Your task to perform on an android device: Go to Amazon Image 0: 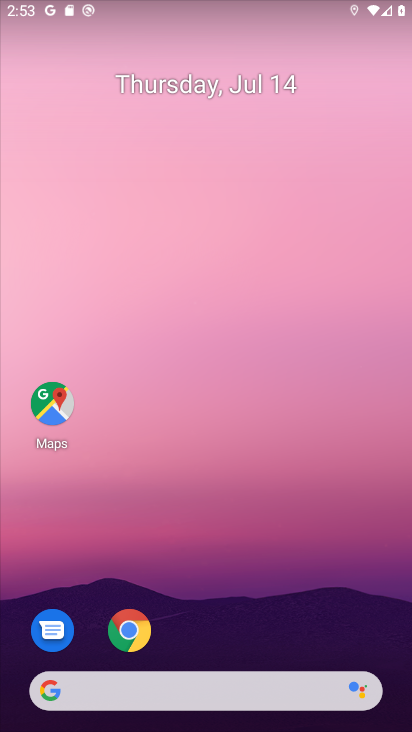
Step 0: drag from (295, 628) to (205, 132)
Your task to perform on an android device: Go to Amazon Image 1: 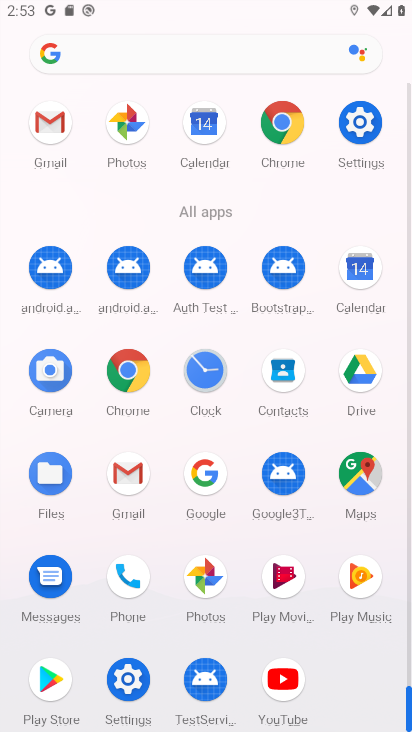
Step 1: click (274, 122)
Your task to perform on an android device: Go to Amazon Image 2: 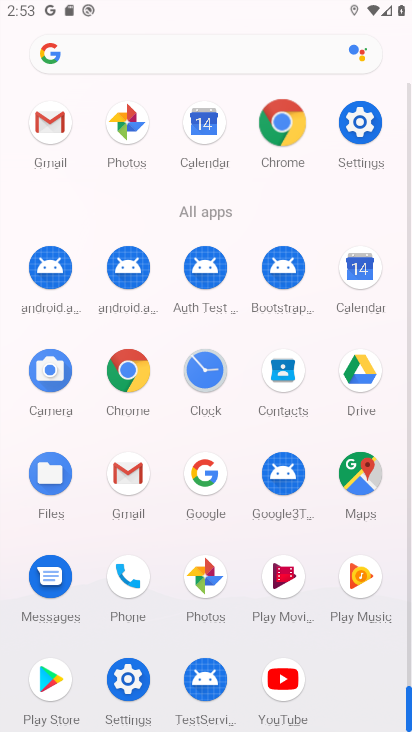
Step 2: click (274, 122)
Your task to perform on an android device: Go to Amazon Image 3: 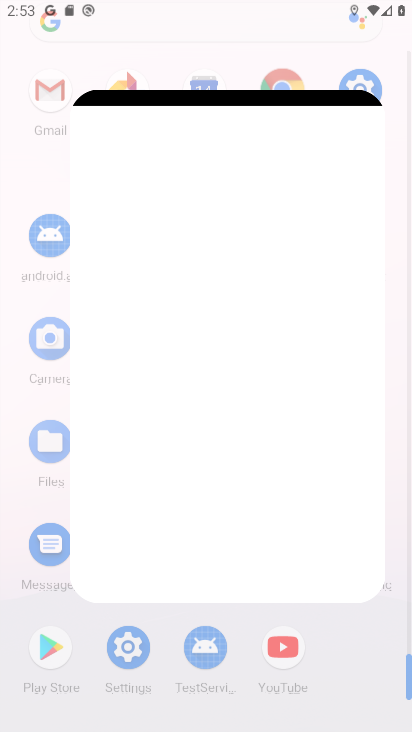
Step 3: click (275, 122)
Your task to perform on an android device: Go to Amazon Image 4: 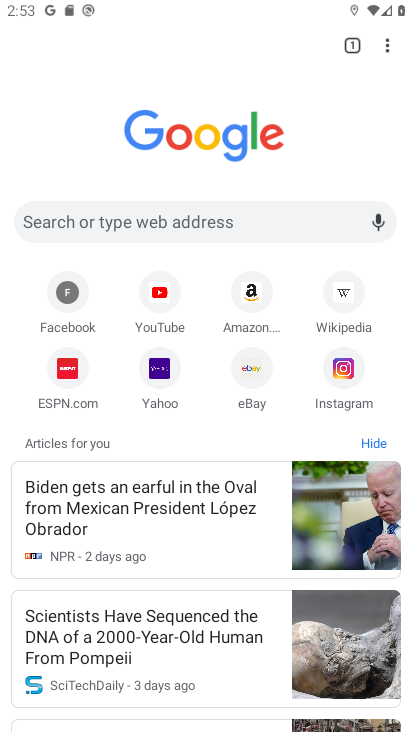
Step 4: click (236, 279)
Your task to perform on an android device: Go to Amazon Image 5: 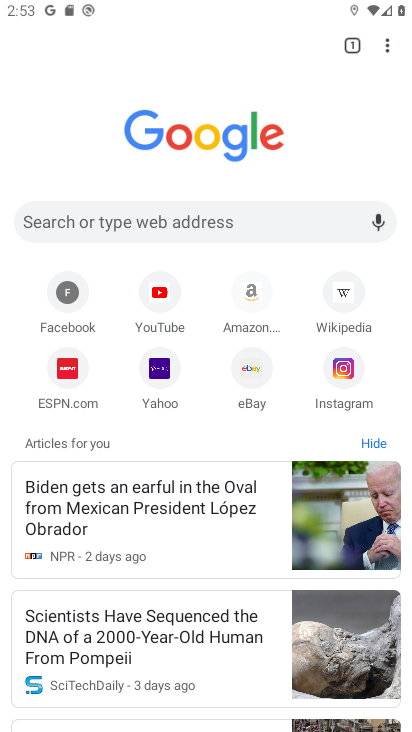
Step 5: click (245, 281)
Your task to perform on an android device: Go to Amazon Image 6: 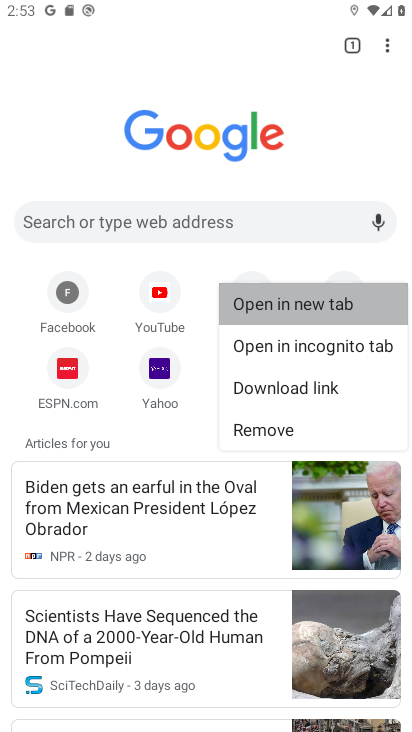
Step 6: click (253, 284)
Your task to perform on an android device: Go to Amazon Image 7: 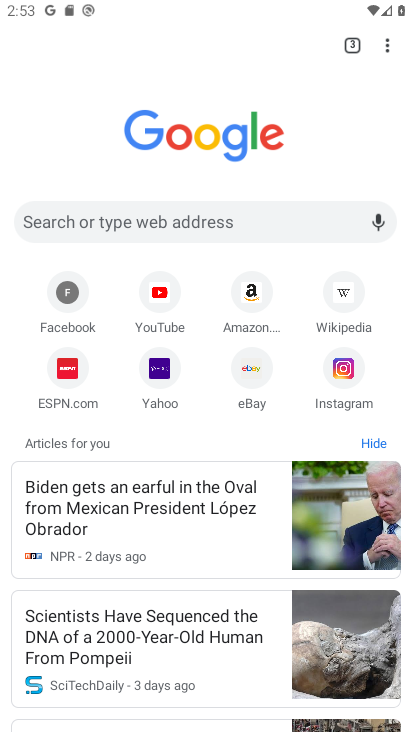
Step 7: click (258, 299)
Your task to perform on an android device: Go to Amazon Image 8: 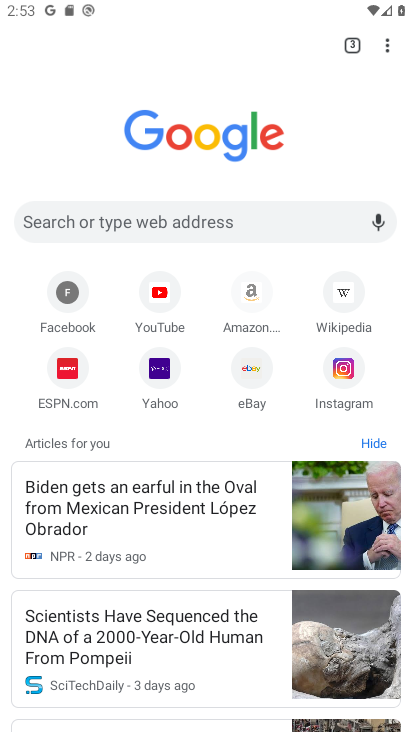
Step 8: click (257, 298)
Your task to perform on an android device: Go to Amazon Image 9: 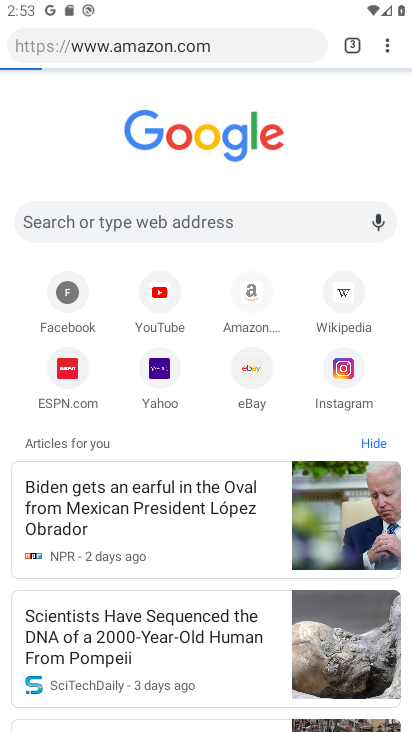
Step 9: click (255, 294)
Your task to perform on an android device: Go to Amazon Image 10: 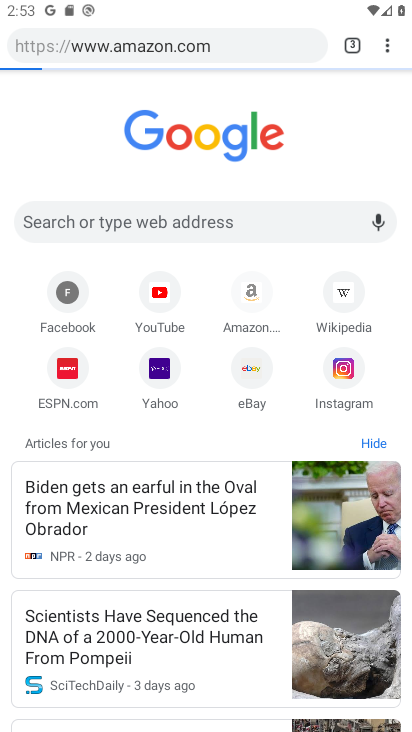
Step 10: click (256, 295)
Your task to perform on an android device: Go to Amazon Image 11: 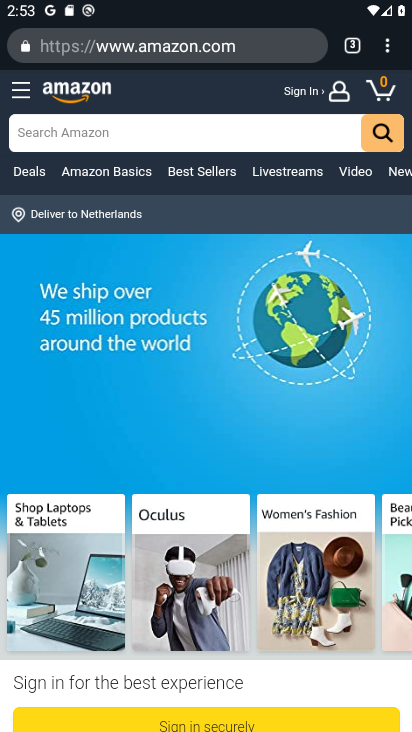
Step 11: task complete